Your task to perform on an android device: Go to privacy settings Image 0: 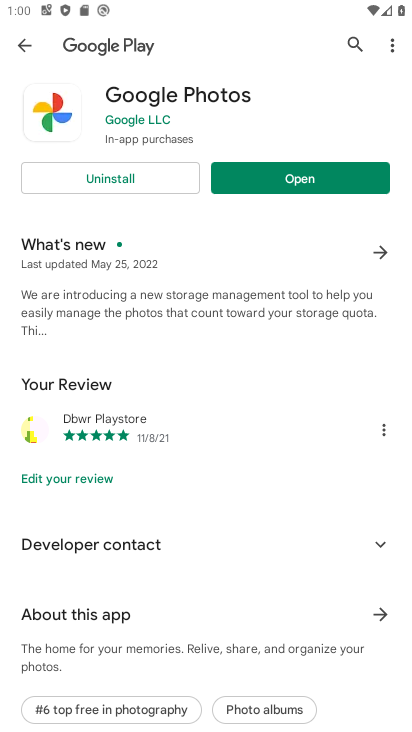
Step 0: press home button
Your task to perform on an android device: Go to privacy settings Image 1: 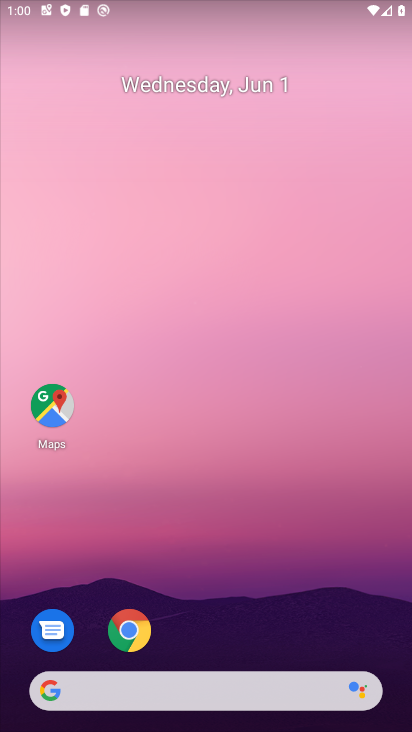
Step 1: drag from (275, 580) to (276, 74)
Your task to perform on an android device: Go to privacy settings Image 2: 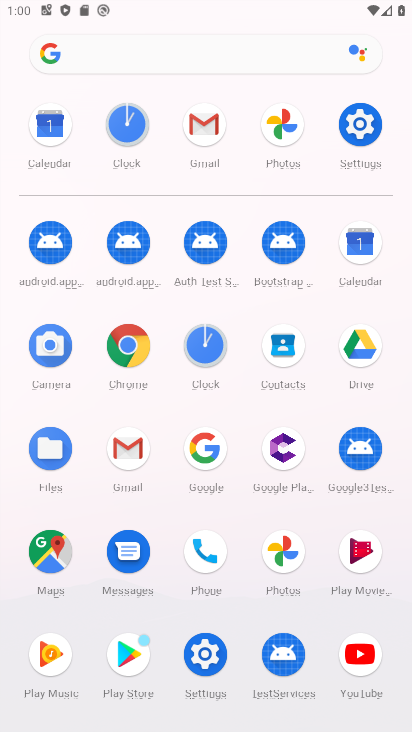
Step 2: click (359, 123)
Your task to perform on an android device: Go to privacy settings Image 3: 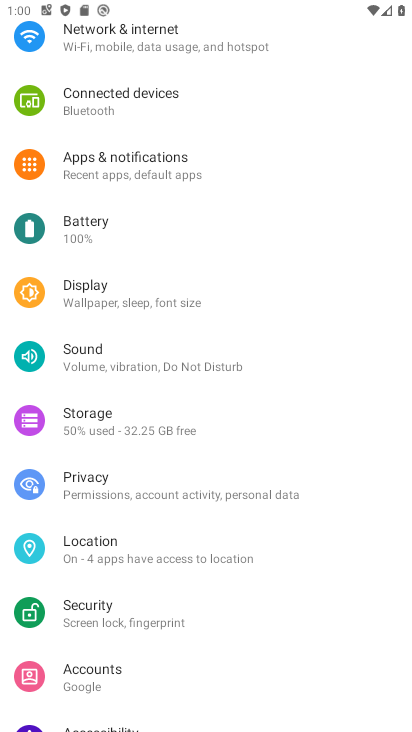
Step 3: click (89, 489)
Your task to perform on an android device: Go to privacy settings Image 4: 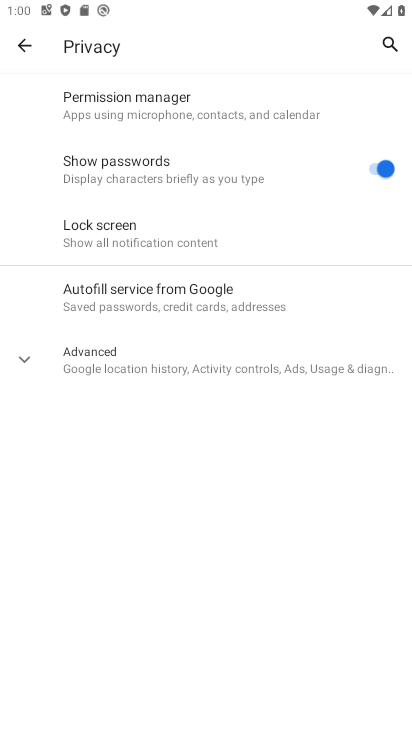
Step 4: task complete